Your task to perform on an android device: turn off translation in the chrome app Image 0: 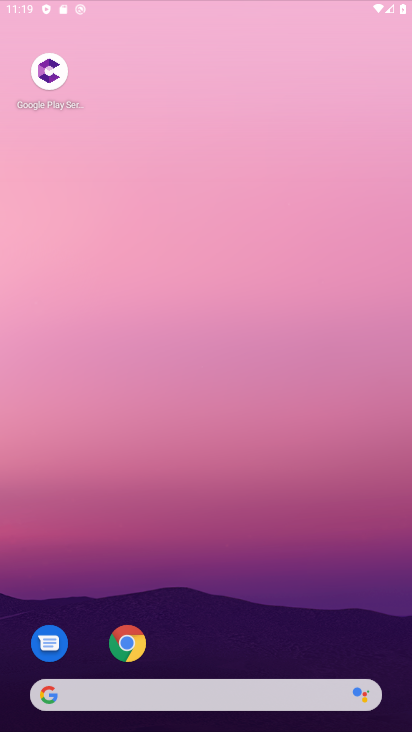
Step 0: click (214, 186)
Your task to perform on an android device: turn off translation in the chrome app Image 1: 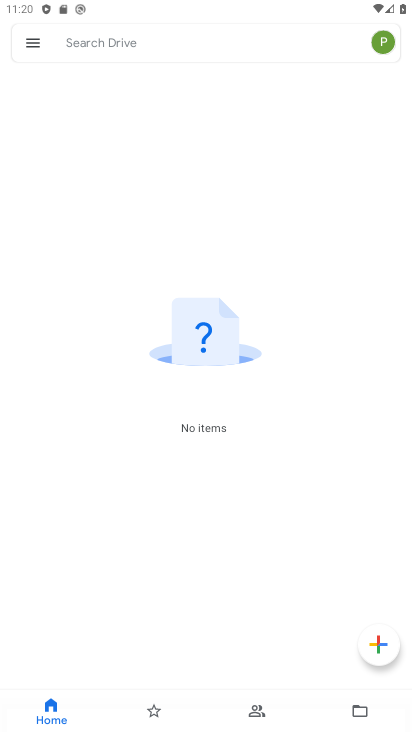
Step 1: click (402, 498)
Your task to perform on an android device: turn off translation in the chrome app Image 2: 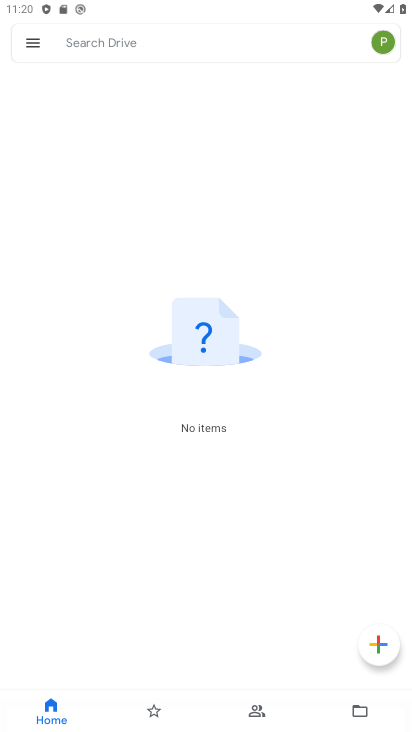
Step 2: press home button
Your task to perform on an android device: turn off translation in the chrome app Image 3: 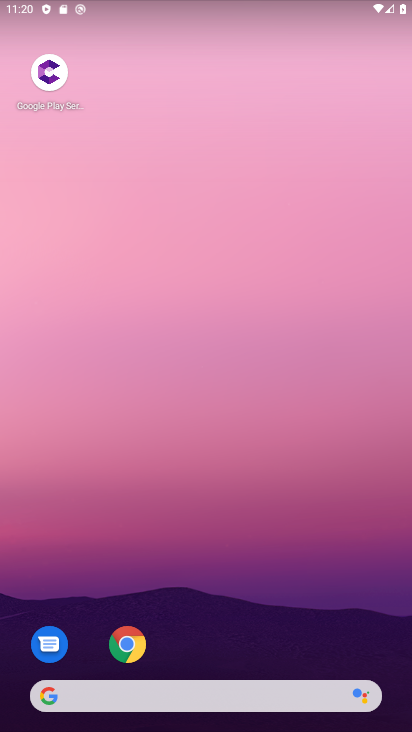
Step 3: drag from (220, 621) to (218, 152)
Your task to perform on an android device: turn off translation in the chrome app Image 4: 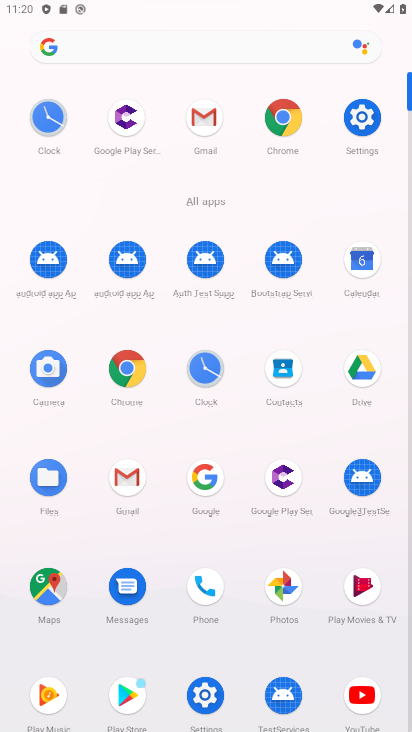
Step 4: click (122, 386)
Your task to perform on an android device: turn off translation in the chrome app Image 5: 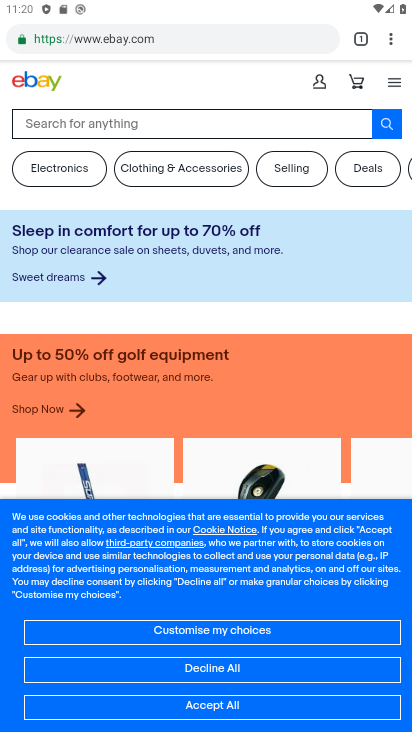
Step 5: click (391, 39)
Your task to perform on an android device: turn off translation in the chrome app Image 6: 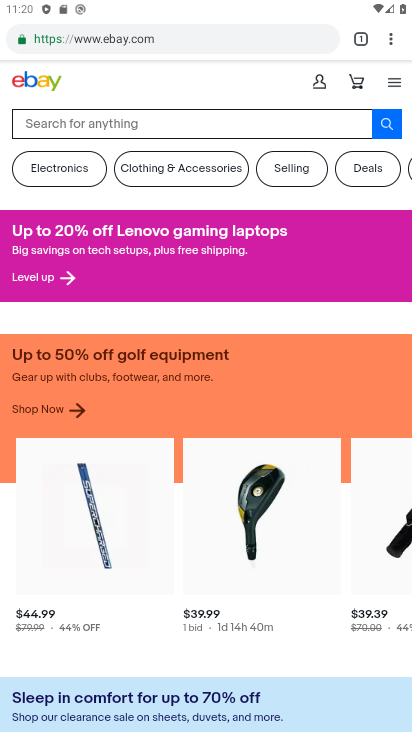
Step 6: click (390, 36)
Your task to perform on an android device: turn off translation in the chrome app Image 7: 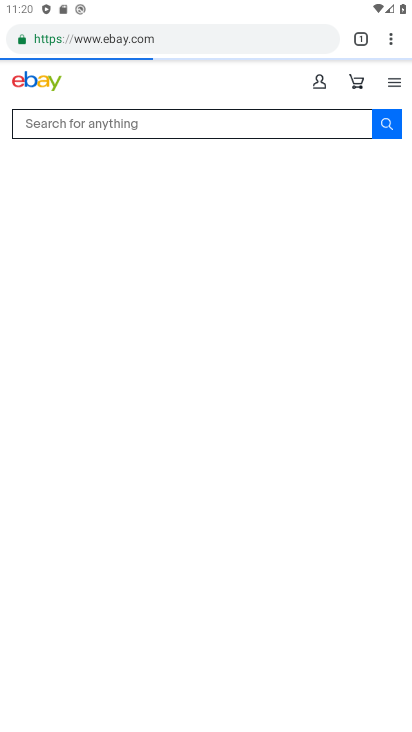
Step 7: click (392, 39)
Your task to perform on an android device: turn off translation in the chrome app Image 8: 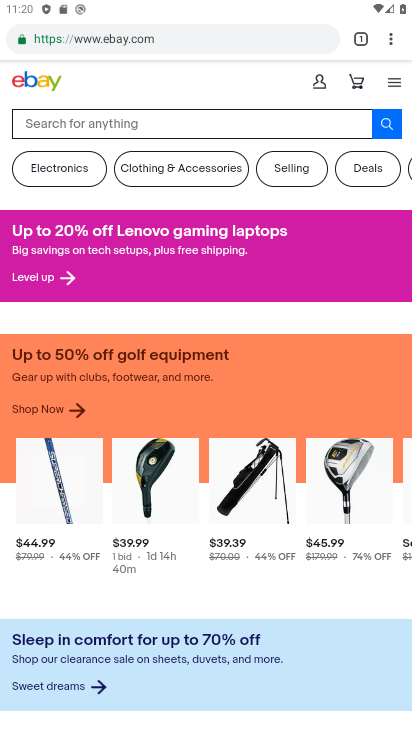
Step 8: click (389, 45)
Your task to perform on an android device: turn off translation in the chrome app Image 9: 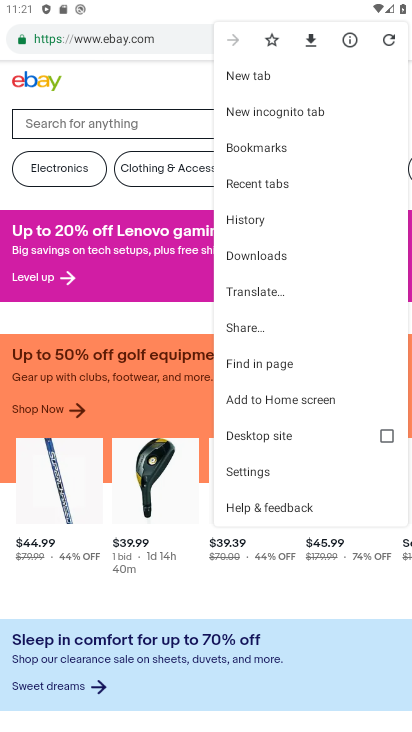
Step 9: click (275, 469)
Your task to perform on an android device: turn off translation in the chrome app Image 10: 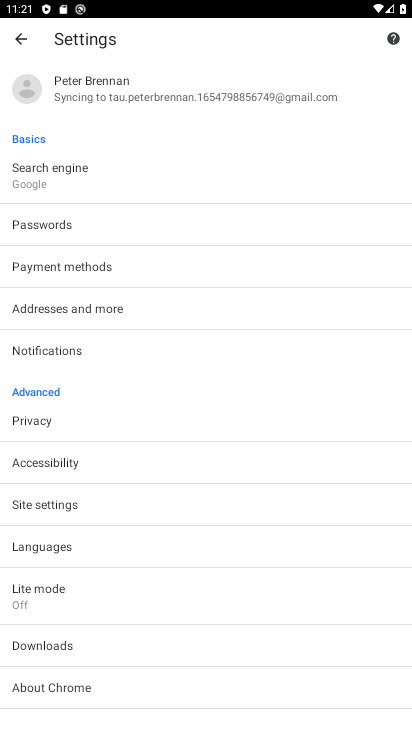
Step 10: click (71, 544)
Your task to perform on an android device: turn off translation in the chrome app Image 11: 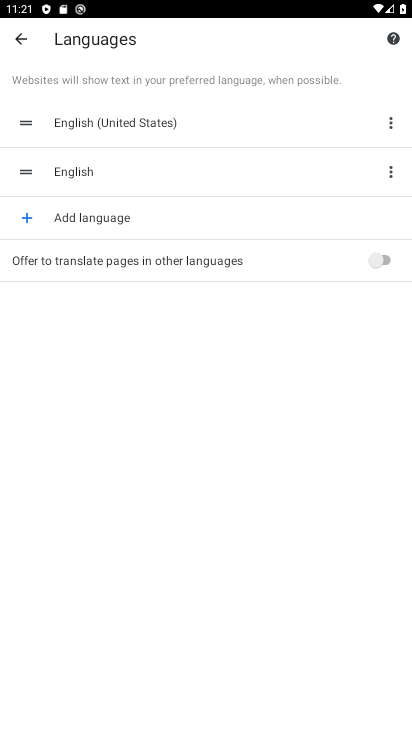
Step 11: task complete